Your task to perform on an android device: read, delete, or share a saved page in the chrome app Image 0: 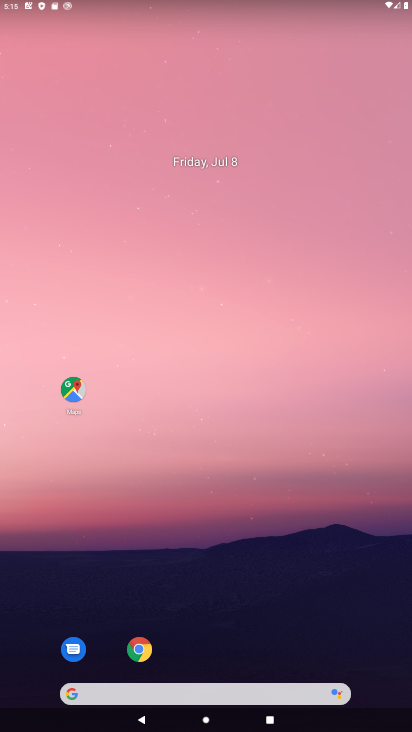
Step 0: drag from (285, 589) to (291, 116)
Your task to perform on an android device: read, delete, or share a saved page in the chrome app Image 1: 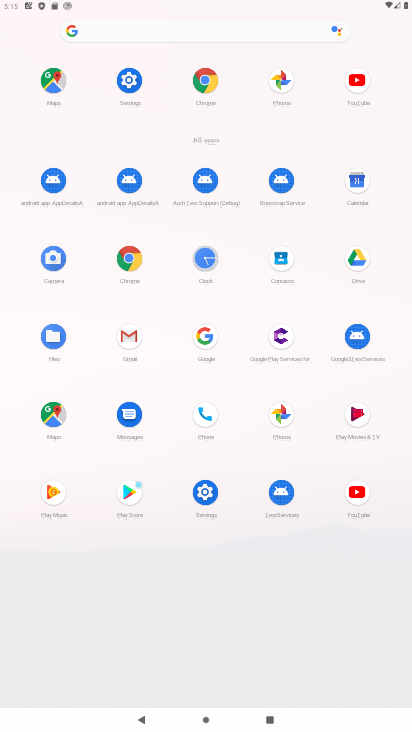
Step 1: click (129, 256)
Your task to perform on an android device: read, delete, or share a saved page in the chrome app Image 2: 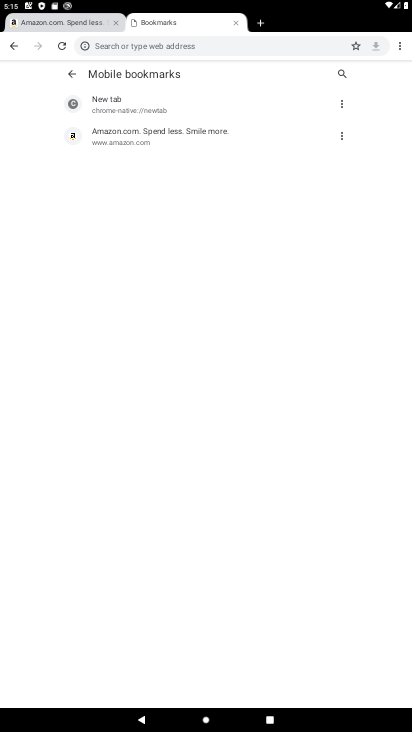
Step 2: task complete